Your task to perform on an android device: empty trash in google photos Image 0: 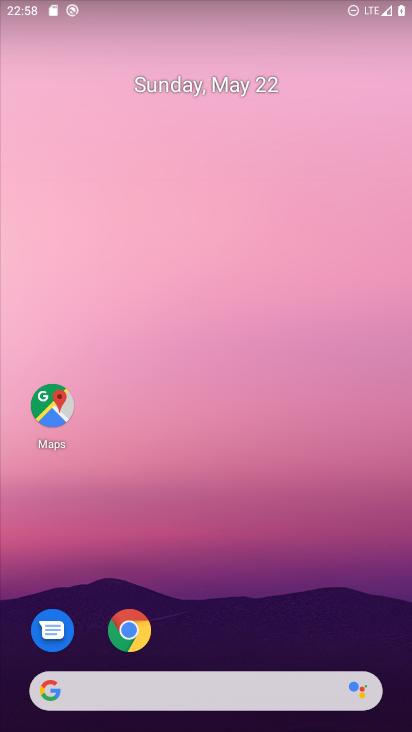
Step 0: press home button
Your task to perform on an android device: empty trash in google photos Image 1: 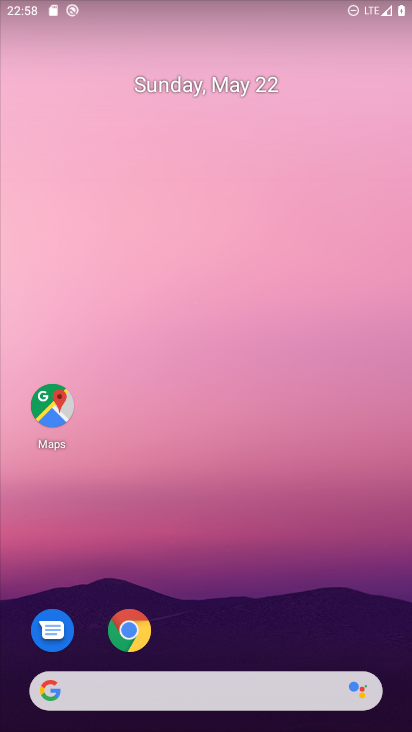
Step 1: drag from (195, 695) to (386, 168)
Your task to perform on an android device: empty trash in google photos Image 2: 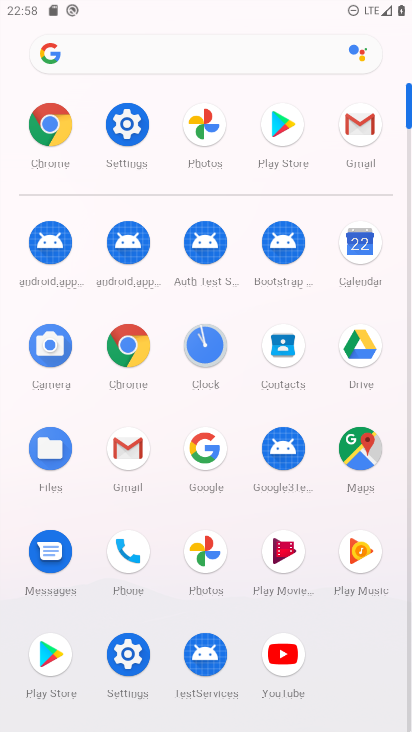
Step 2: click (211, 561)
Your task to perform on an android device: empty trash in google photos Image 3: 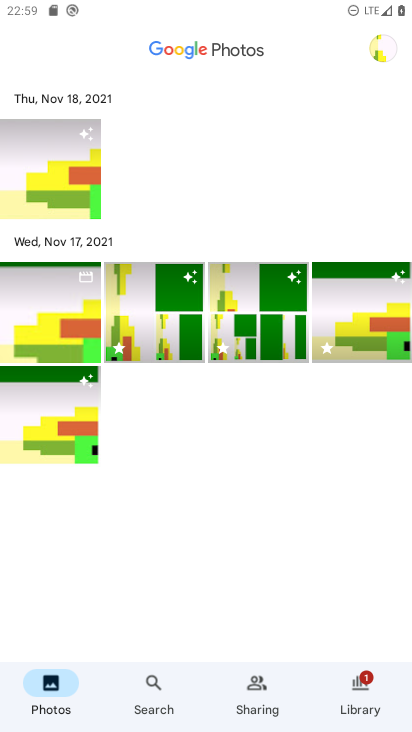
Step 3: click (365, 695)
Your task to perform on an android device: empty trash in google photos Image 4: 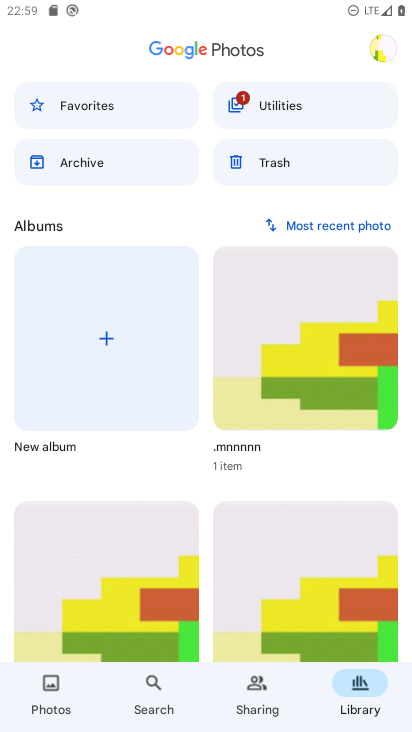
Step 4: click (280, 164)
Your task to perform on an android device: empty trash in google photos Image 5: 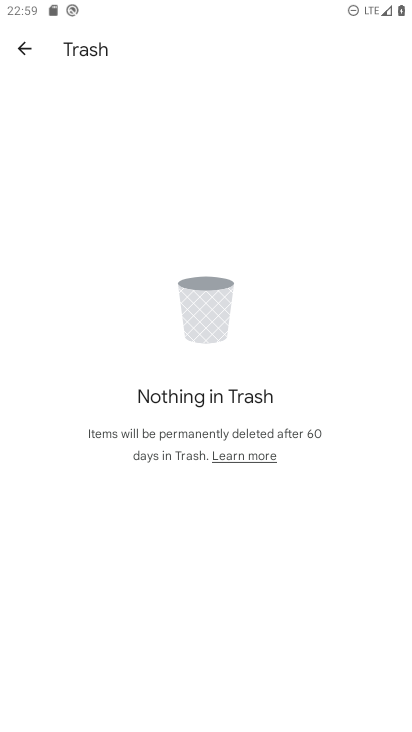
Step 5: task complete